Your task to perform on an android device: turn off airplane mode Image 0: 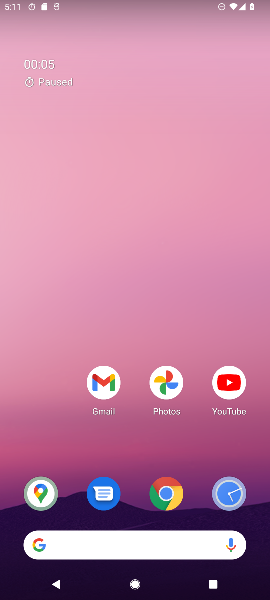
Step 0: drag from (141, 411) to (59, 36)
Your task to perform on an android device: turn off airplane mode Image 1: 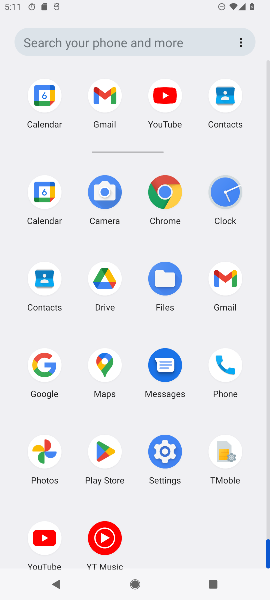
Step 1: click (179, 455)
Your task to perform on an android device: turn off airplane mode Image 2: 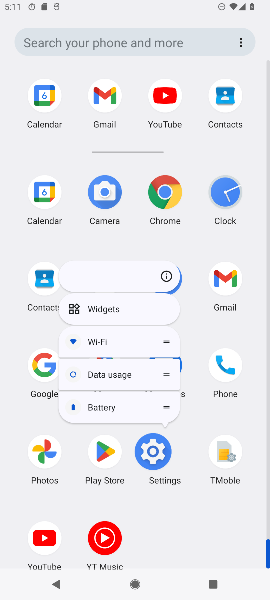
Step 2: click (172, 456)
Your task to perform on an android device: turn off airplane mode Image 3: 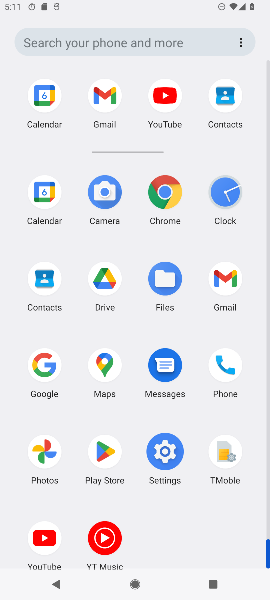
Step 3: click (167, 458)
Your task to perform on an android device: turn off airplane mode Image 4: 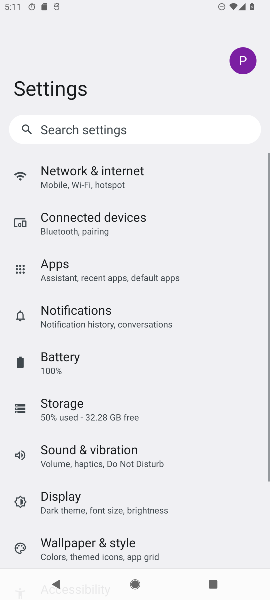
Step 4: click (167, 458)
Your task to perform on an android device: turn off airplane mode Image 5: 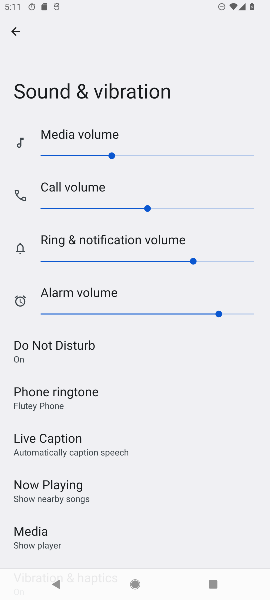
Step 5: click (13, 31)
Your task to perform on an android device: turn off airplane mode Image 6: 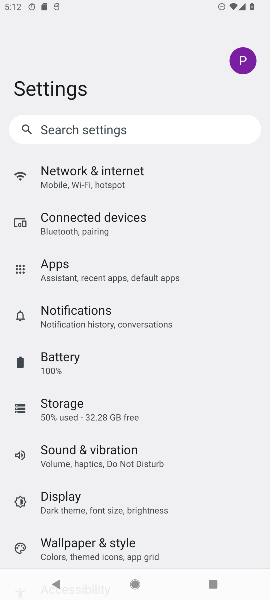
Step 6: click (74, 185)
Your task to perform on an android device: turn off airplane mode Image 7: 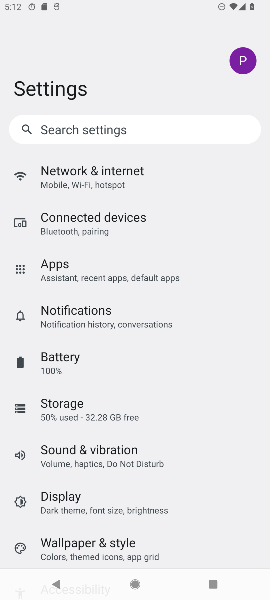
Step 7: click (74, 185)
Your task to perform on an android device: turn off airplane mode Image 8: 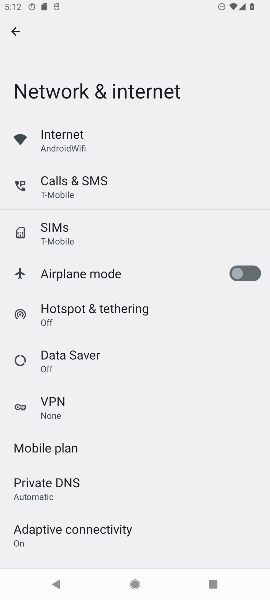
Step 8: task complete